Your task to perform on an android device: Search for flights from NYC to San Diego Image 0: 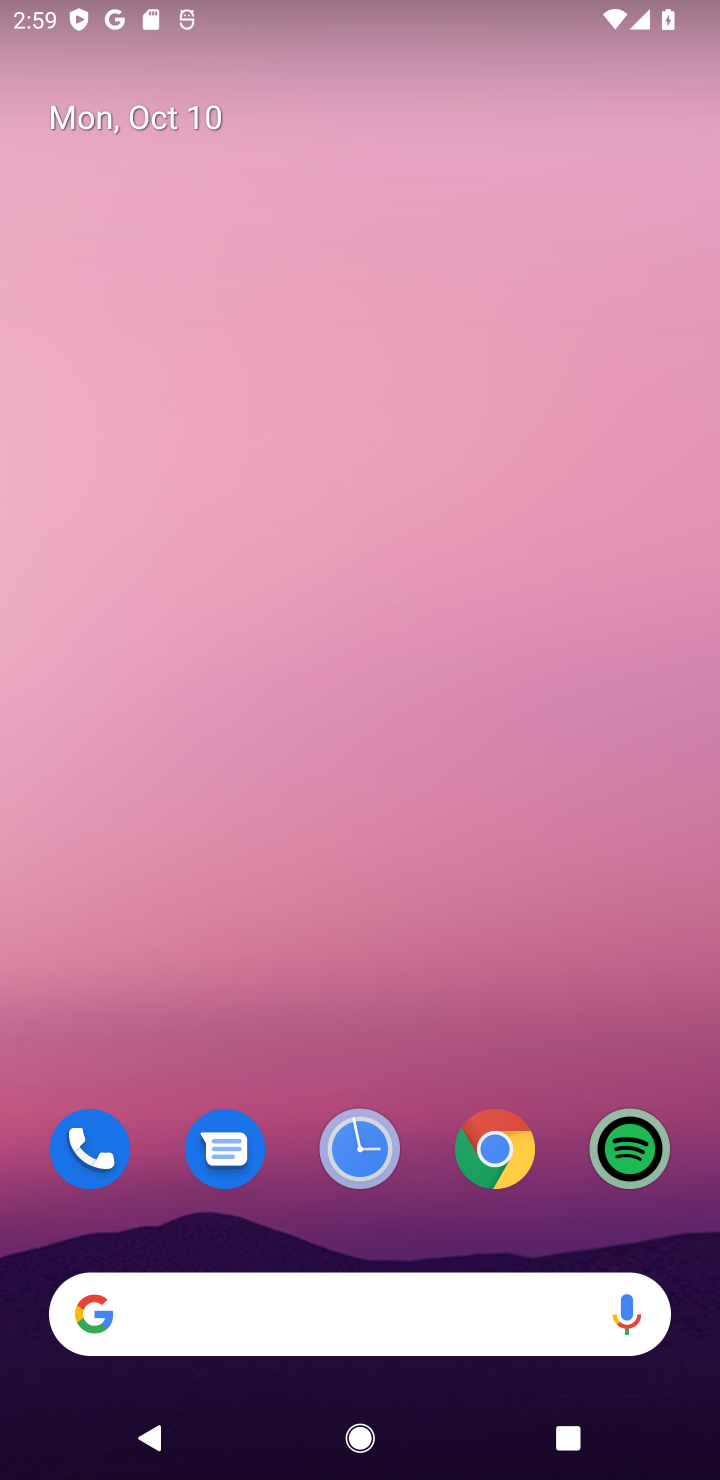
Step 0: click (343, 1320)
Your task to perform on an android device: Search for flights from NYC to San Diego Image 1: 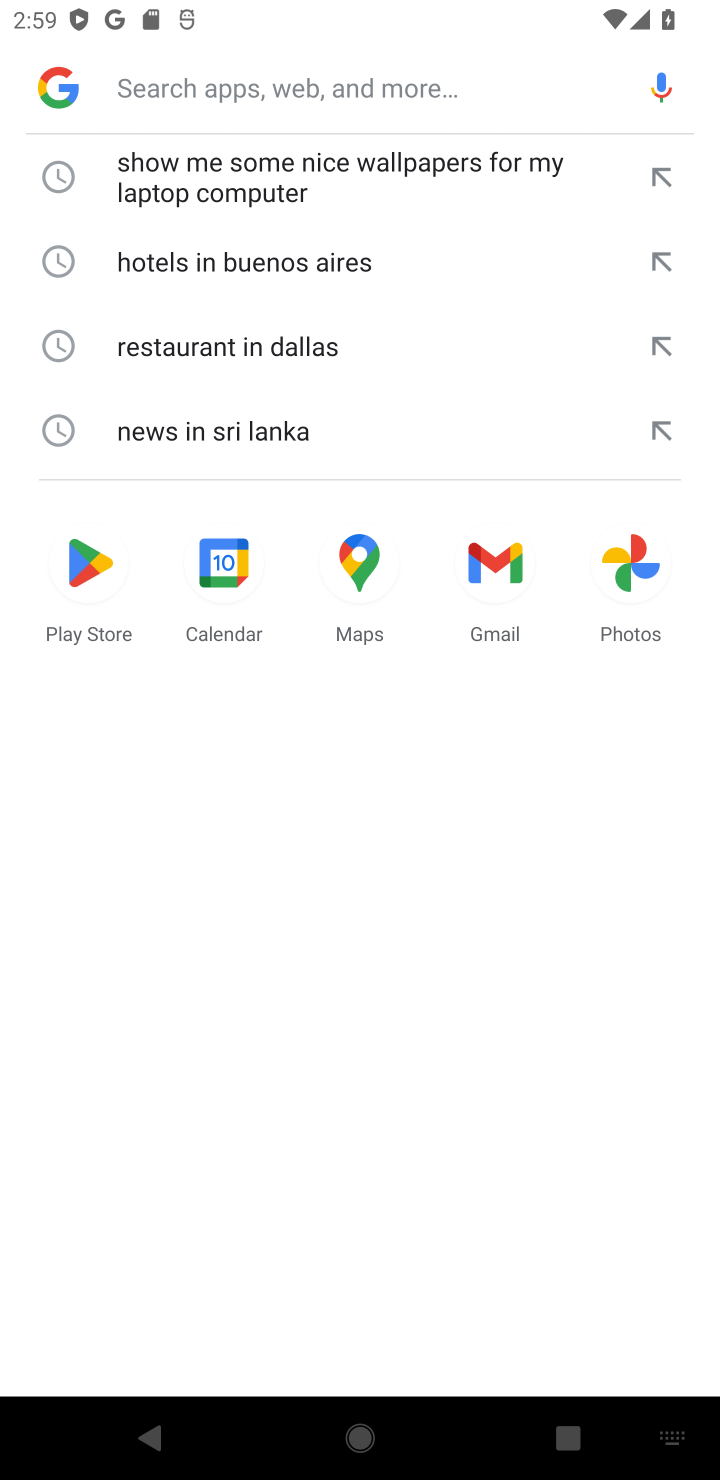
Step 1: type "flights from NYC to San Diego"
Your task to perform on an android device: Search for flights from NYC to San Diego Image 2: 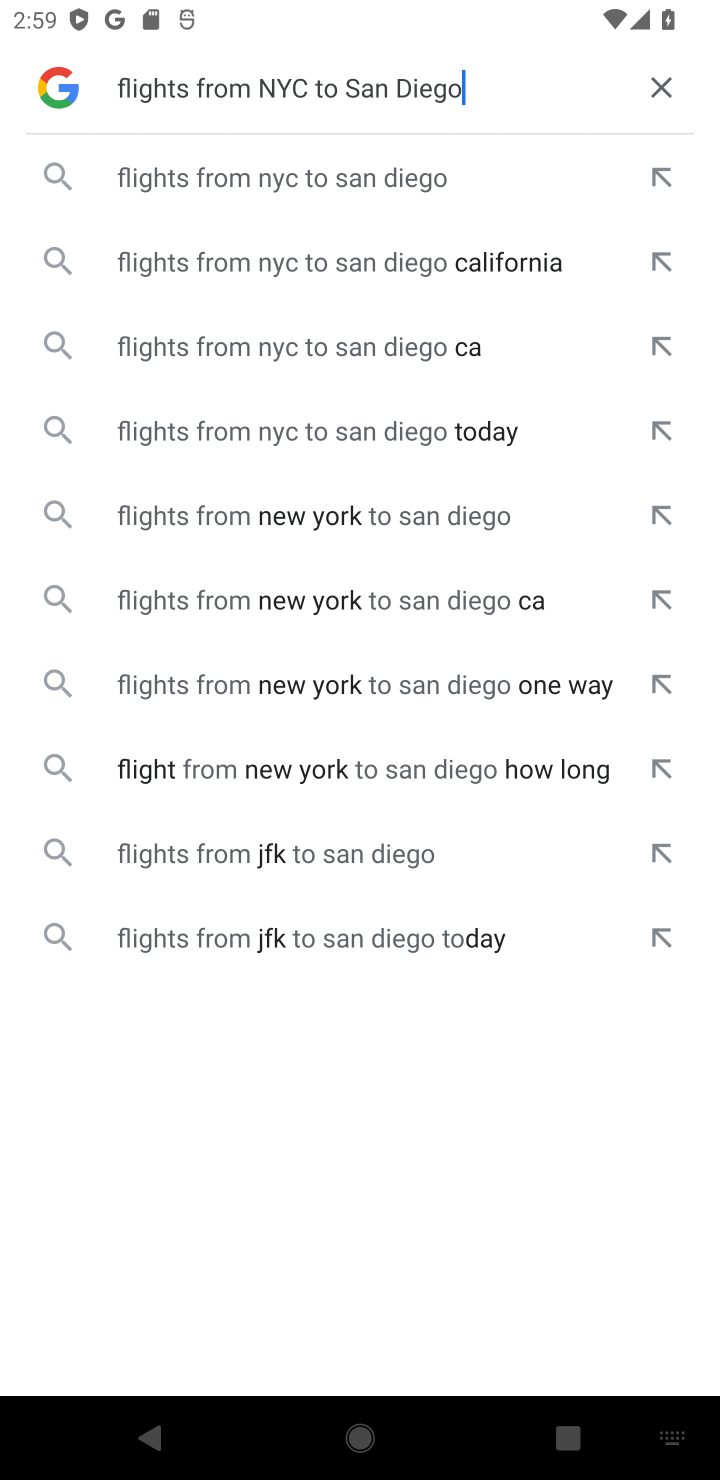
Step 2: click (416, 170)
Your task to perform on an android device: Search for flights from NYC to San Diego Image 3: 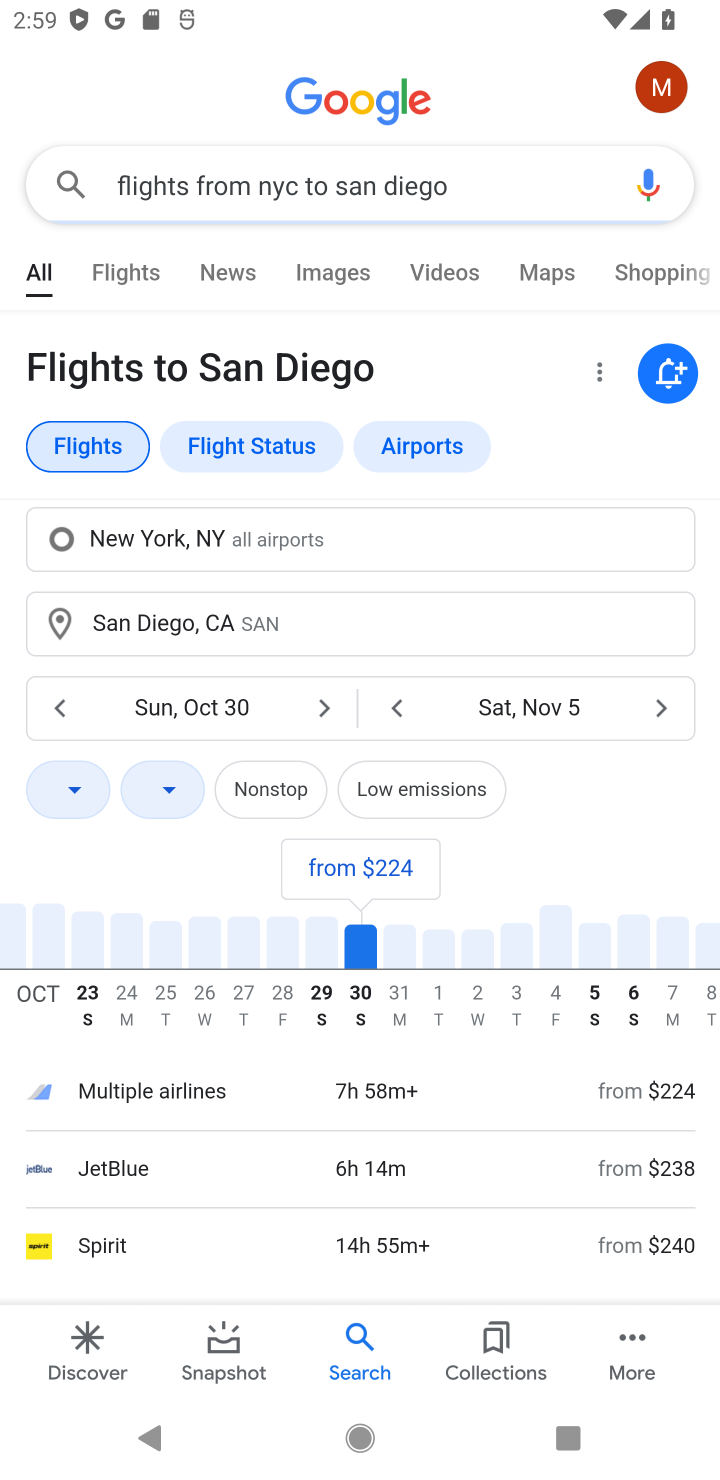
Step 3: task complete